Your task to perform on an android device: delete a single message in the gmail app Image 0: 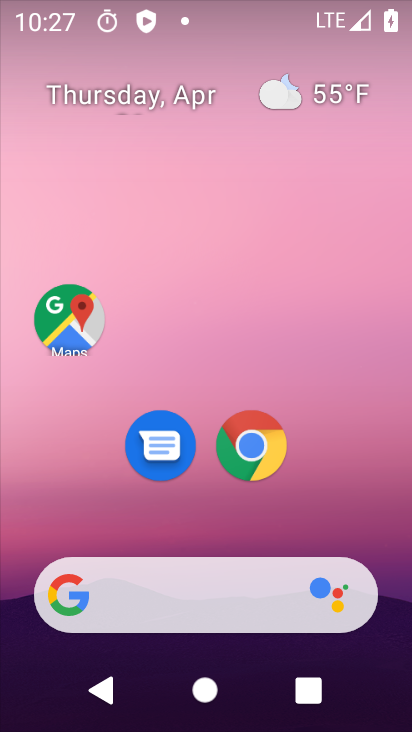
Step 0: press home button
Your task to perform on an android device: delete a single message in the gmail app Image 1: 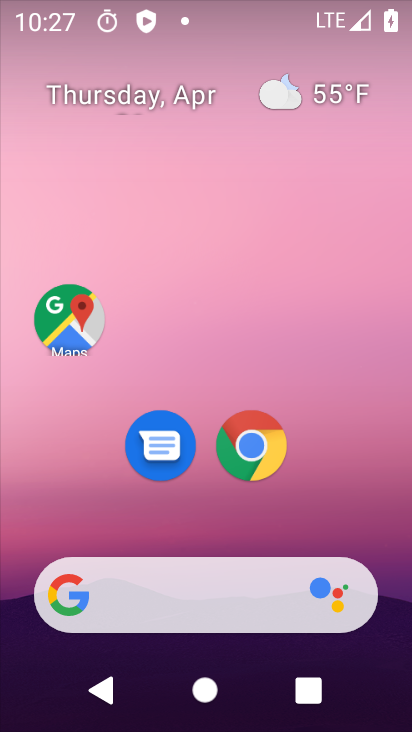
Step 1: drag from (376, 557) to (351, 5)
Your task to perform on an android device: delete a single message in the gmail app Image 2: 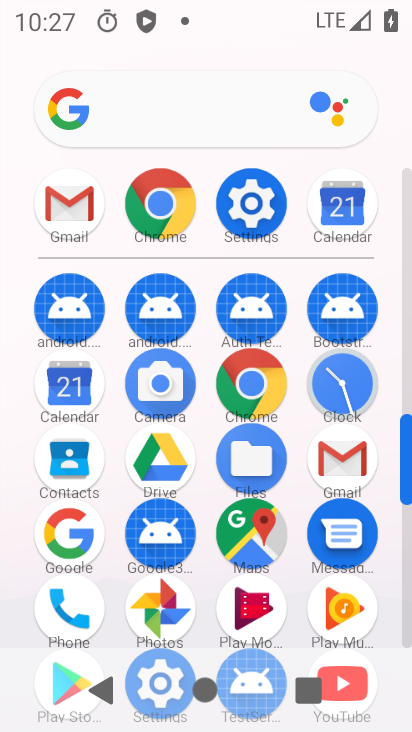
Step 2: click (68, 216)
Your task to perform on an android device: delete a single message in the gmail app Image 3: 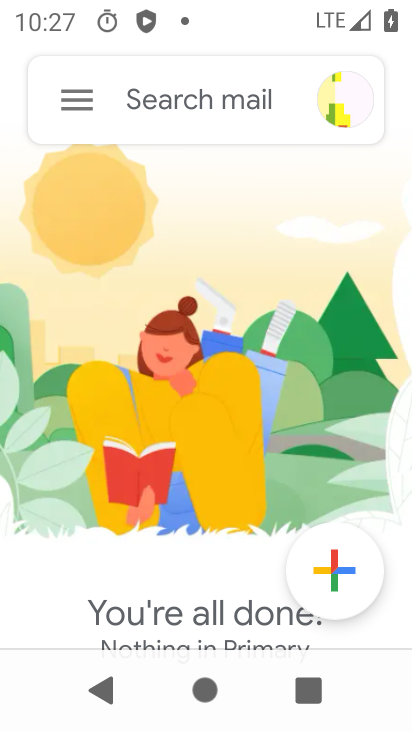
Step 3: click (63, 99)
Your task to perform on an android device: delete a single message in the gmail app Image 4: 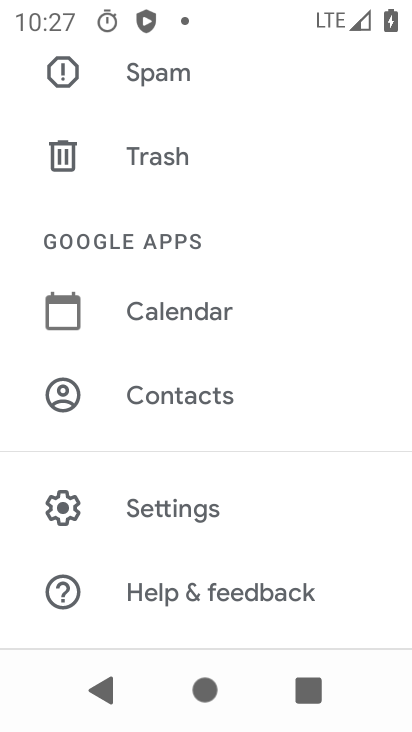
Step 4: drag from (245, 244) to (242, 588)
Your task to perform on an android device: delete a single message in the gmail app Image 5: 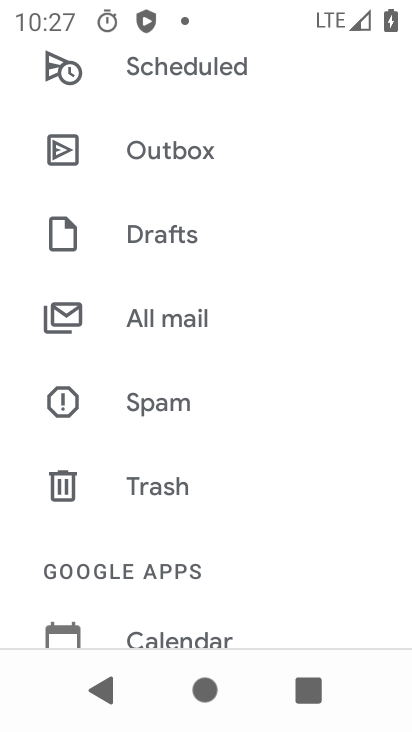
Step 5: click (130, 315)
Your task to perform on an android device: delete a single message in the gmail app Image 6: 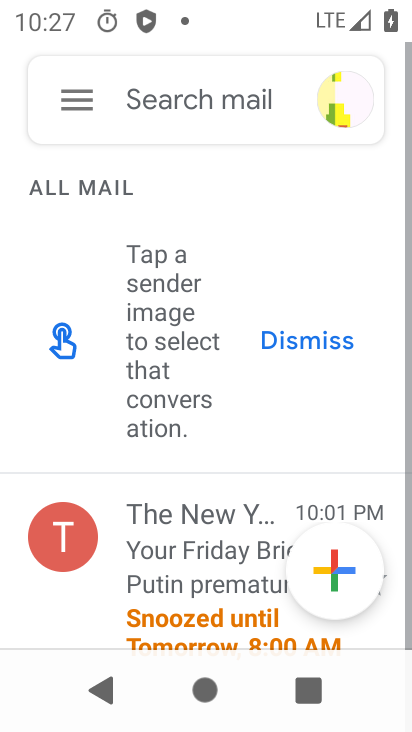
Step 6: drag from (191, 464) to (184, 236)
Your task to perform on an android device: delete a single message in the gmail app Image 7: 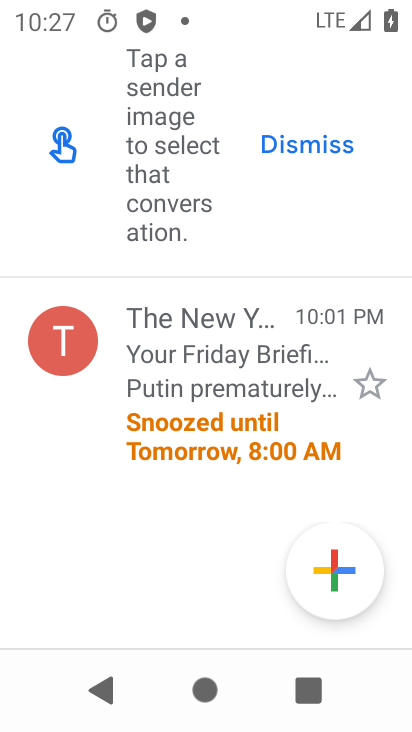
Step 7: drag from (195, 285) to (195, 492)
Your task to perform on an android device: delete a single message in the gmail app Image 8: 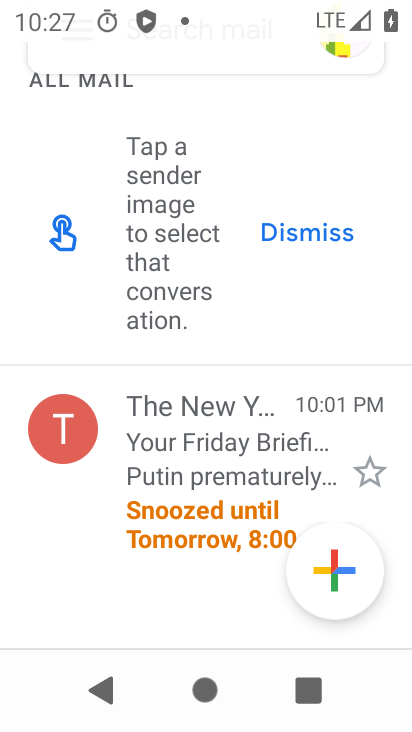
Step 8: click (190, 435)
Your task to perform on an android device: delete a single message in the gmail app Image 9: 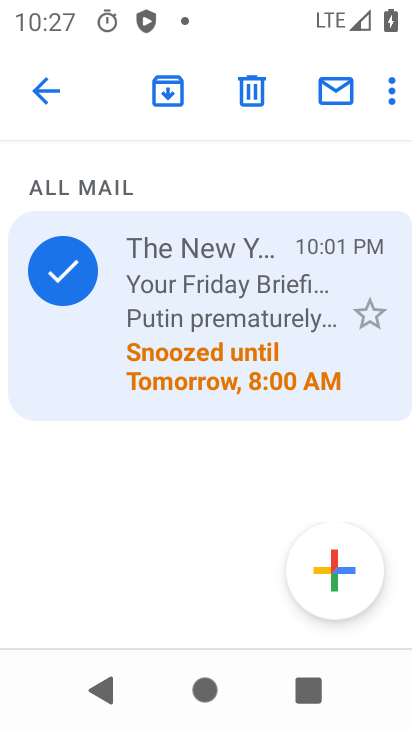
Step 9: click (242, 109)
Your task to perform on an android device: delete a single message in the gmail app Image 10: 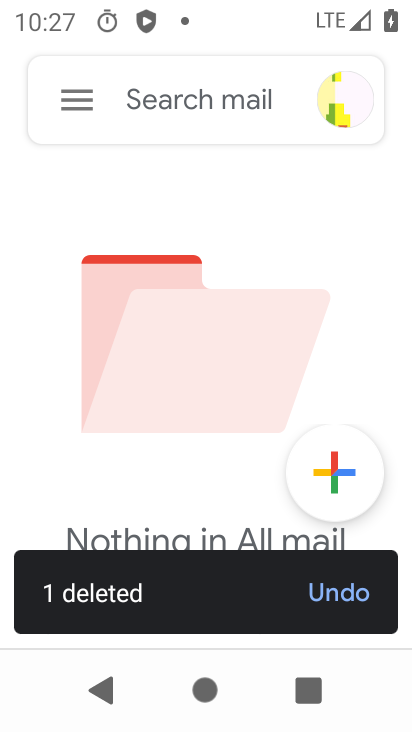
Step 10: task complete